Your task to perform on an android device: Open Google Chrome and open the bookmarks view Image 0: 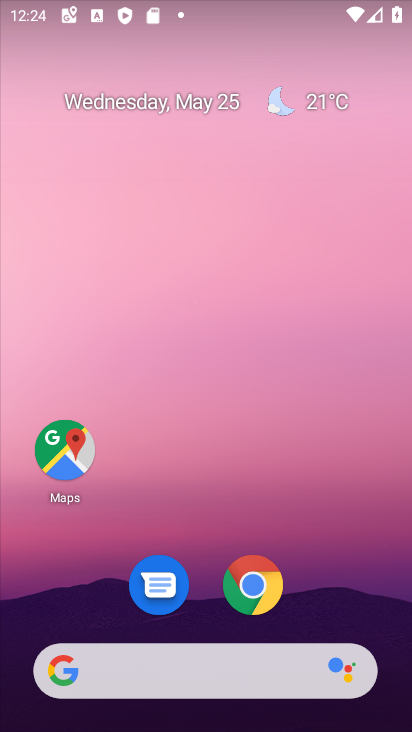
Step 0: click (264, 574)
Your task to perform on an android device: Open Google Chrome and open the bookmarks view Image 1: 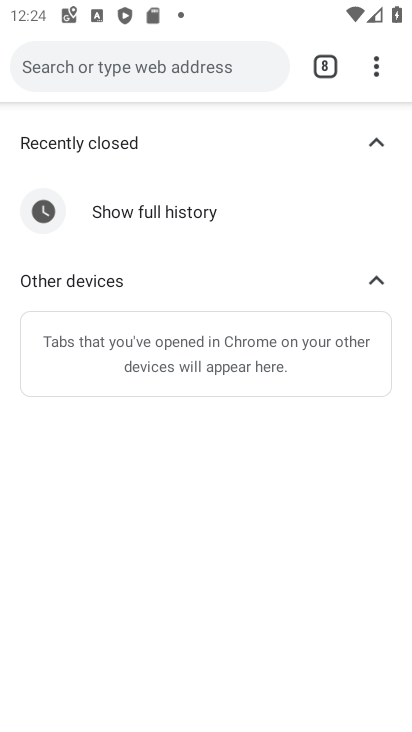
Step 1: click (380, 62)
Your task to perform on an android device: Open Google Chrome and open the bookmarks view Image 2: 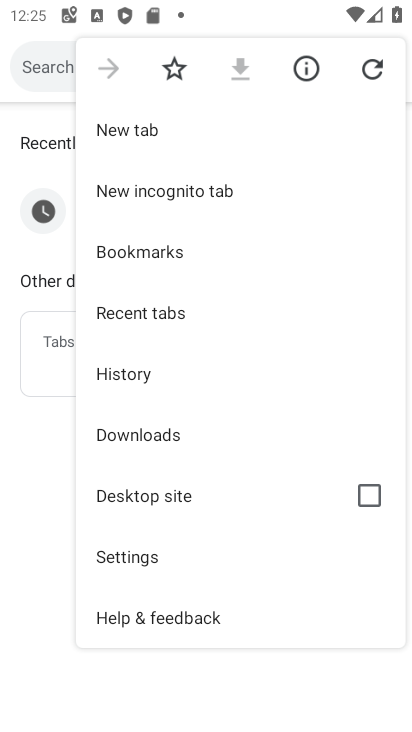
Step 2: click (191, 249)
Your task to perform on an android device: Open Google Chrome and open the bookmarks view Image 3: 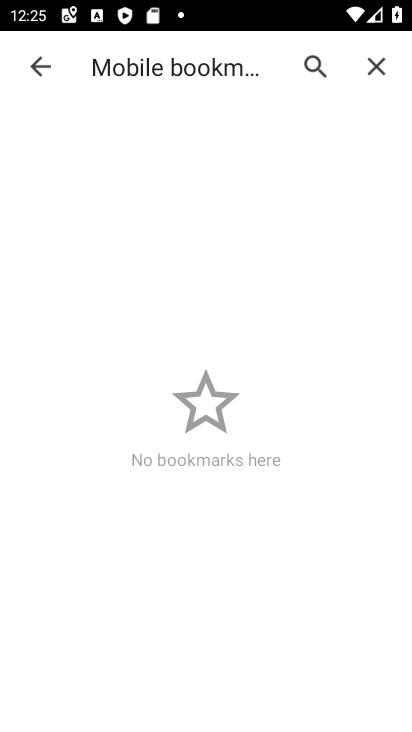
Step 3: task complete